Your task to perform on an android device: What's on my calendar today? Image 0: 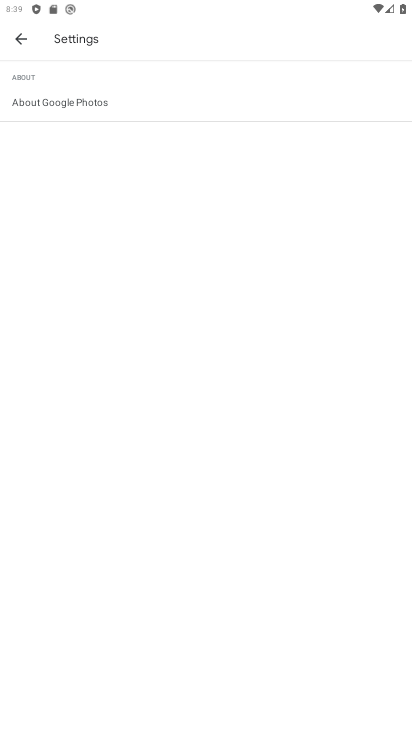
Step 0: press home button
Your task to perform on an android device: What's on my calendar today? Image 1: 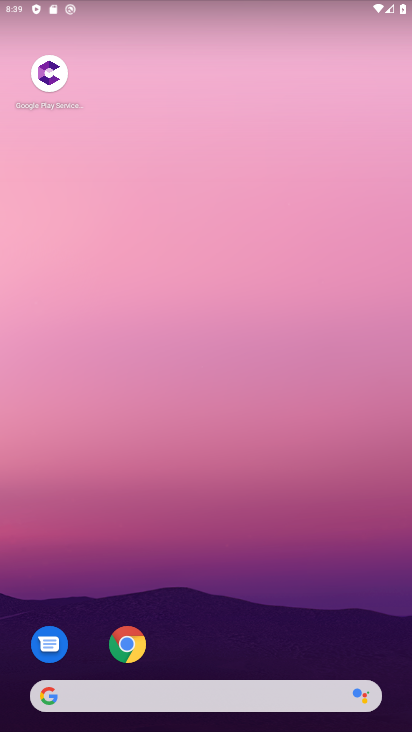
Step 1: drag from (168, 654) to (268, 100)
Your task to perform on an android device: What's on my calendar today? Image 2: 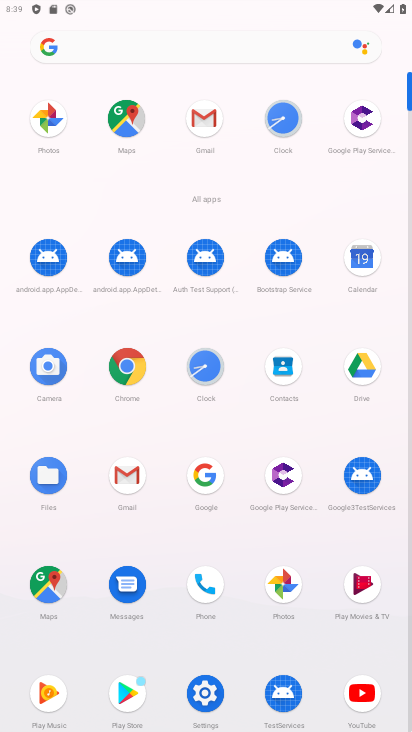
Step 2: click (358, 268)
Your task to perform on an android device: What's on my calendar today? Image 3: 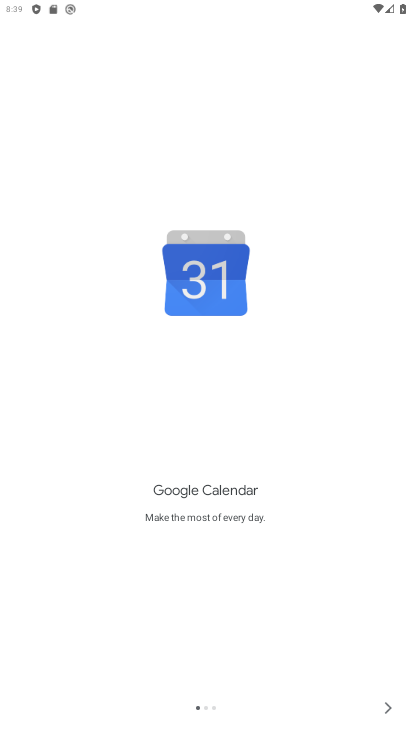
Step 3: click (383, 702)
Your task to perform on an android device: What's on my calendar today? Image 4: 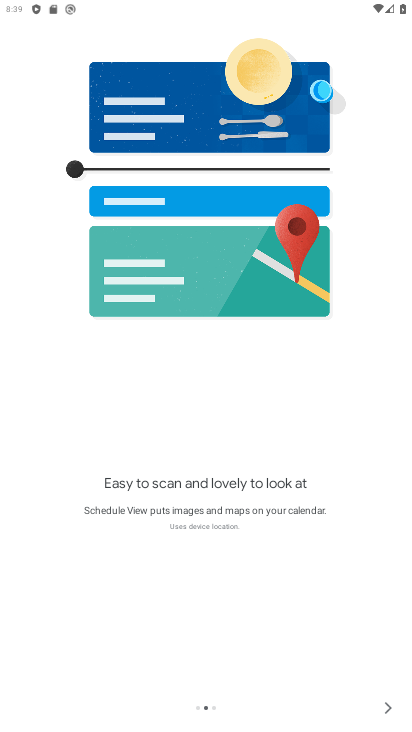
Step 4: click (385, 705)
Your task to perform on an android device: What's on my calendar today? Image 5: 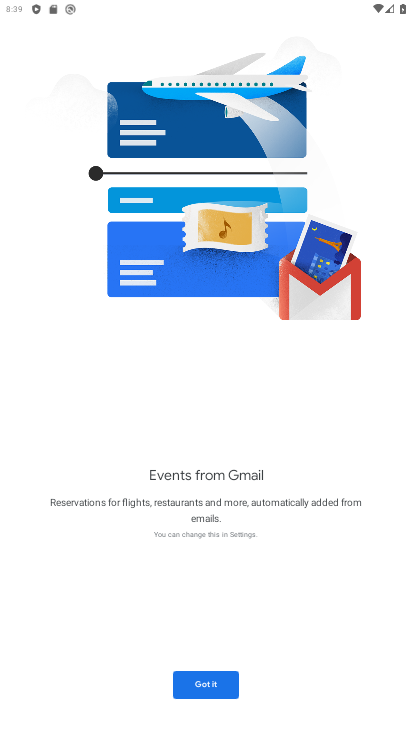
Step 5: click (197, 686)
Your task to perform on an android device: What's on my calendar today? Image 6: 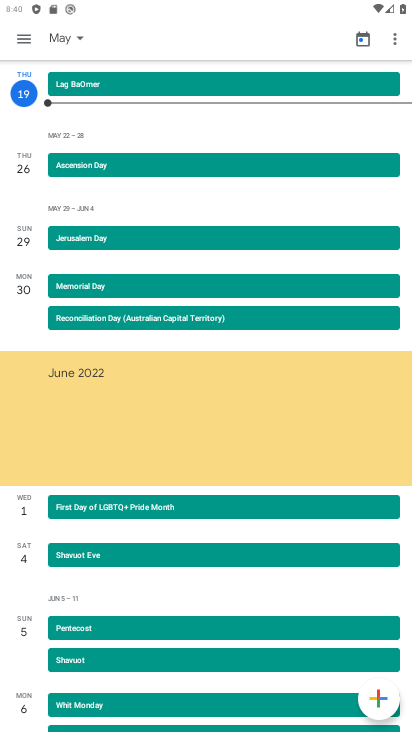
Step 6: click (22, 32)
Your task to perform on an android device: What's on my calendar today? Image 7: 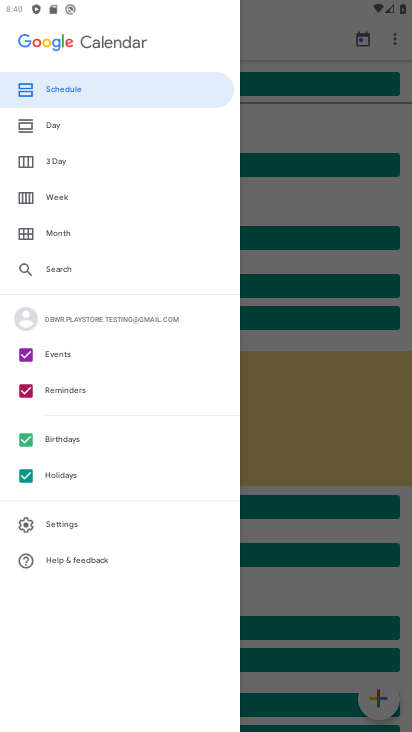
Step 7: click (56, 133)
Your task to perform on an android device: What's on my calendar today? Image 8: 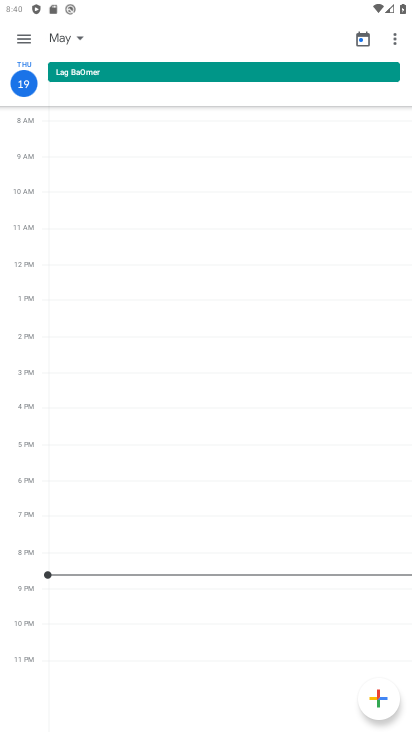
Step 8: task complete